Your task to perform on an android device: Clear the shopping cart on walmart.com. Search for jbl flip 4 on walmart.com, select the first entry, and add it to the cart. Image 0: 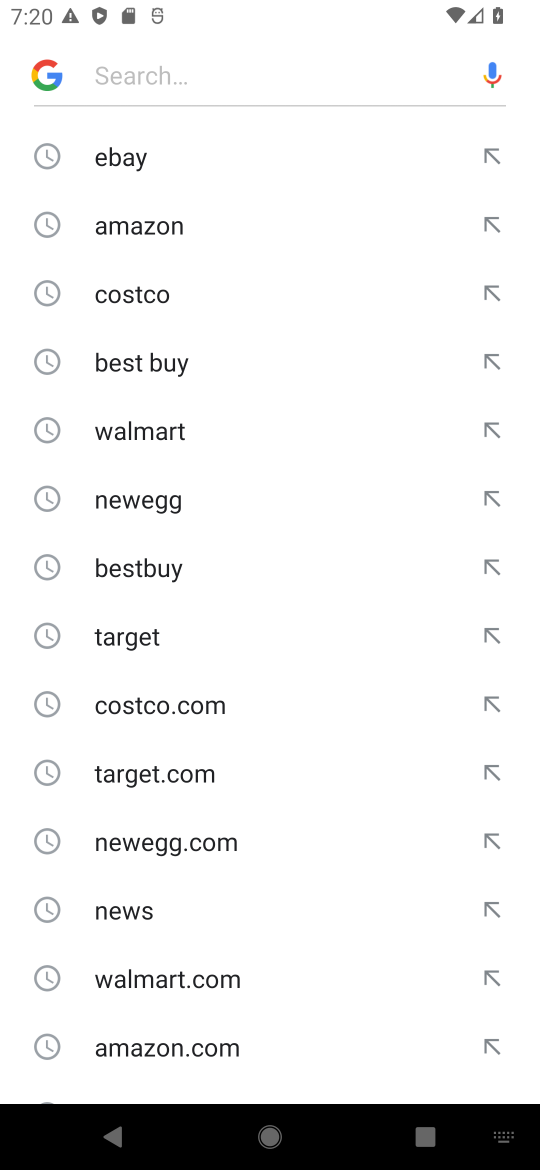
Step 0: press home button
Your task to perform on an android device: Clear the shopping cart on walmart.com. Search for jbl flip 4 on walmart.com, select the first entry, and add it to the cart. Image 1: 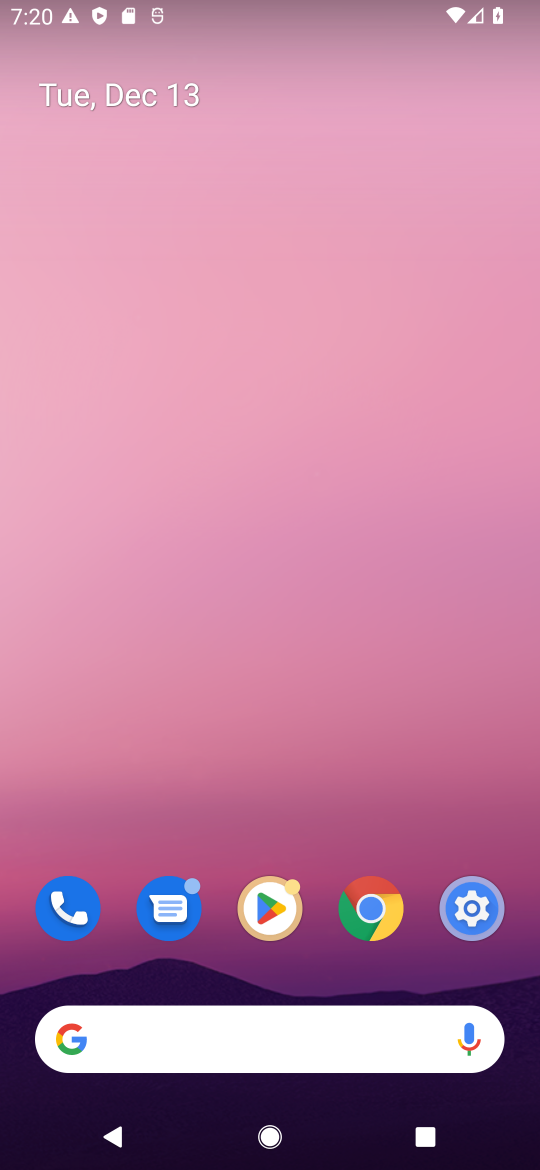
Step 1: click (123, 1041)
Your task to perform on an android device: Clear the shopping cart on walmart.com. Search for jbl flip 4 on walmart.com, select the first entry, and add it to the cart. Image 2: 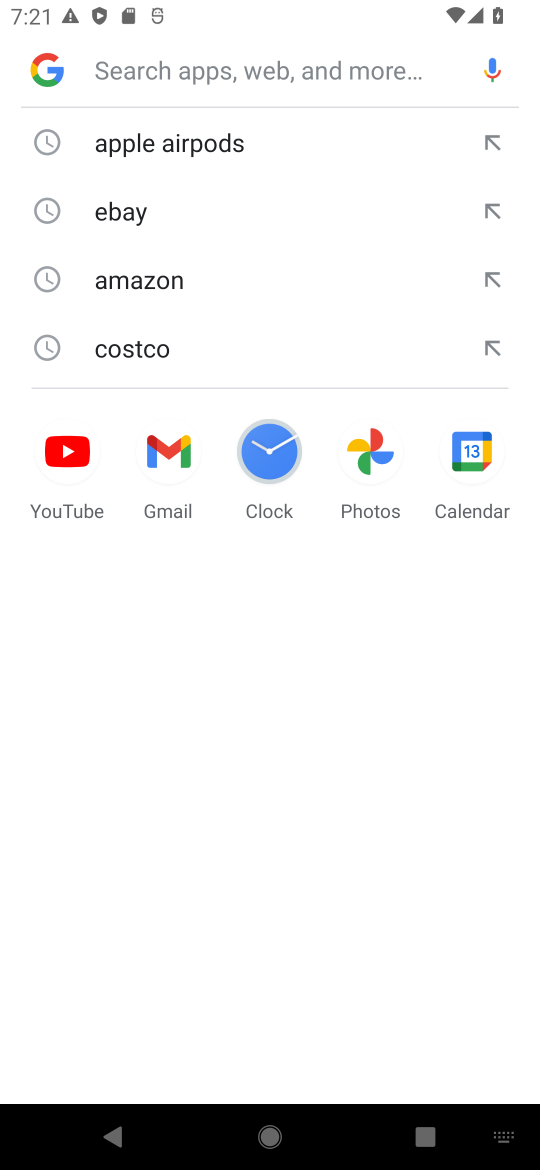
Step 2: type "walmart.com"
Your task to perform on an android device: Clear the shopping cart on walmart.com. Search for jbl flip 4 on walmart.com, select the first entry, and add it to the cart. Image 3: 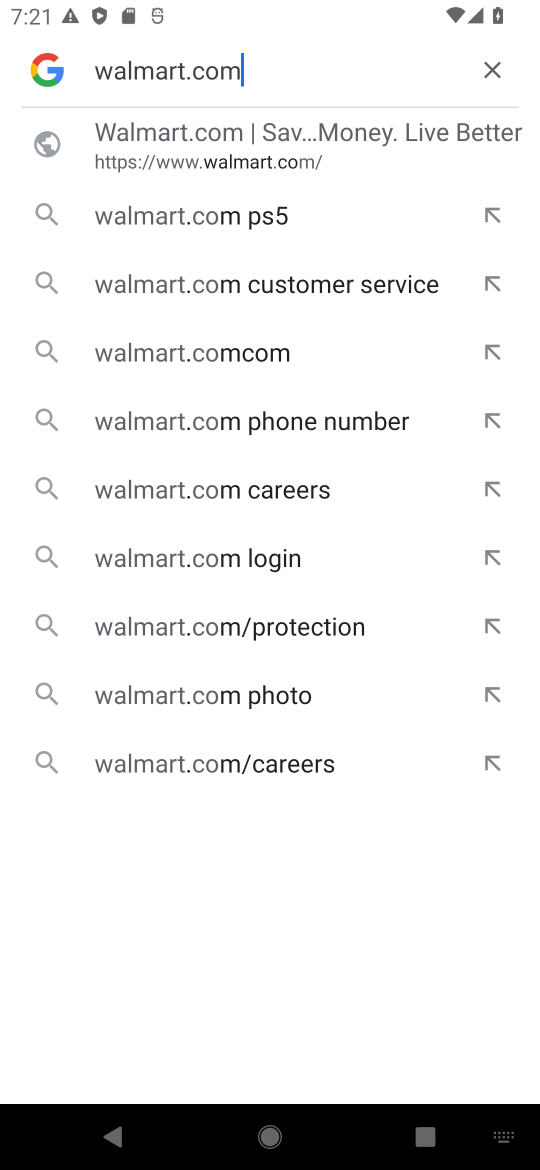
Step 3: press enter
Your task to perform on an android device: Clear the shopping cart on walmart.com. Search for jbl flip 4 on walmart.com, select the first entry, and add it to the cart. Image 4: 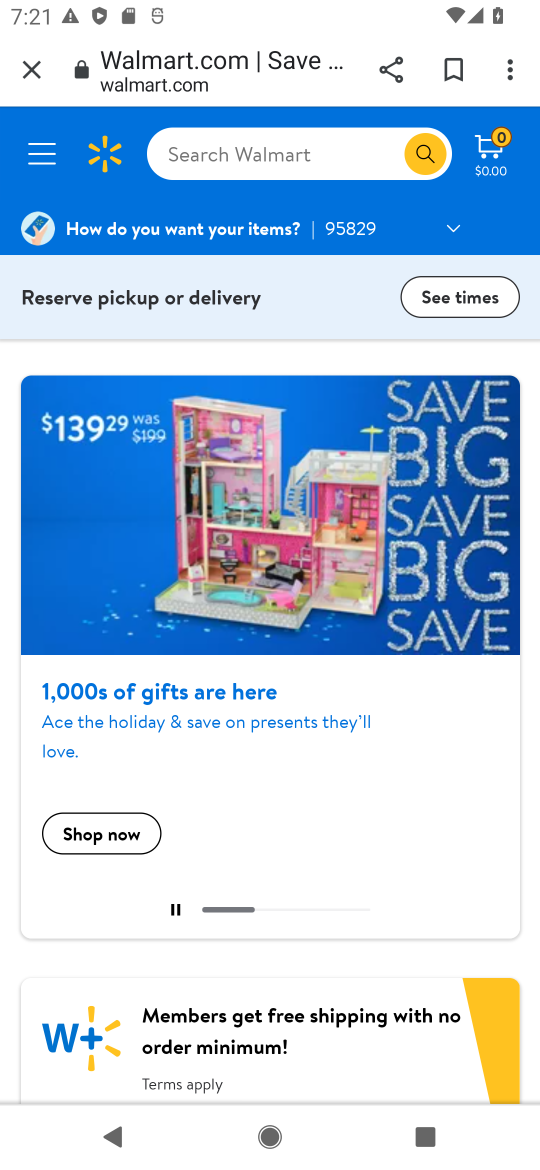
Step 4: click (488, 136)
Your task to perform on an android device: Clear the shopping cart on walmart.com. Search for jbl flip 4 on walmart.com, select the first entry, and add it to the cart. Image 5: 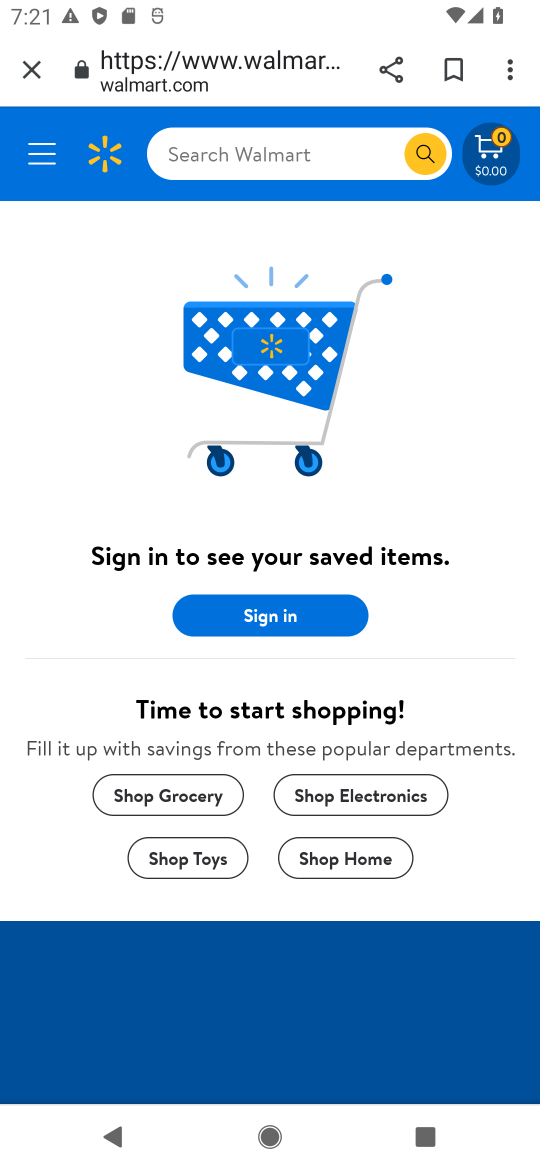
Step 5: click (205, 158)
Your task to perform on an android device: Clear the shopping cart on walmart.com. Search for jbl flip 4 on walmart.com, select the first entry, and add it to the cart. Image 6: 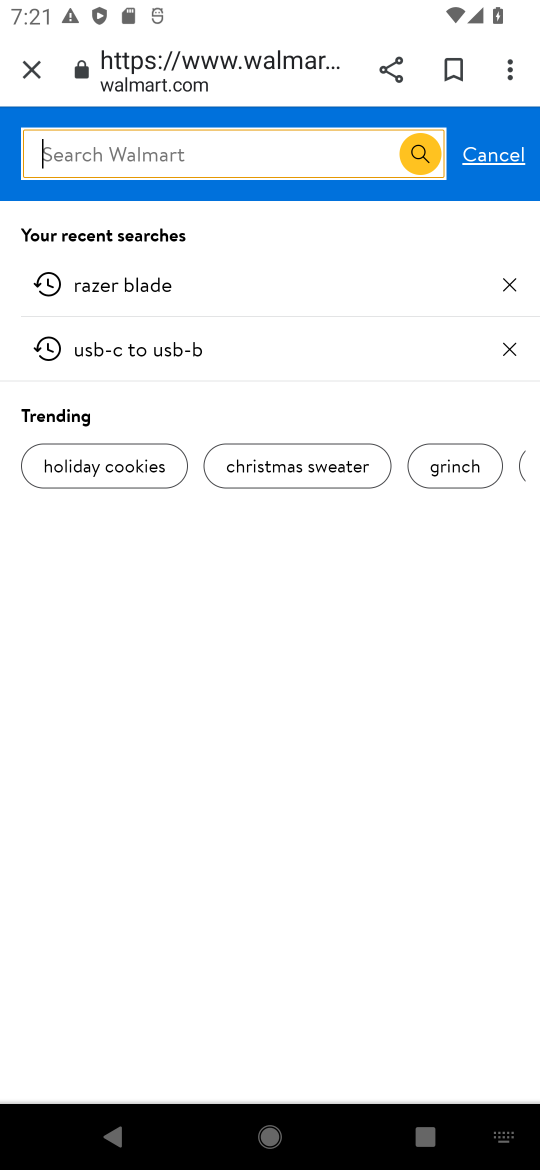
Step 6: type "jbl flip 4"
Your task to perform on an android device: Clear the shopping cart on walmart.com. Search for jbl flip 4 on walmart.com, select the first entry, and add it to the cart. Image 7: 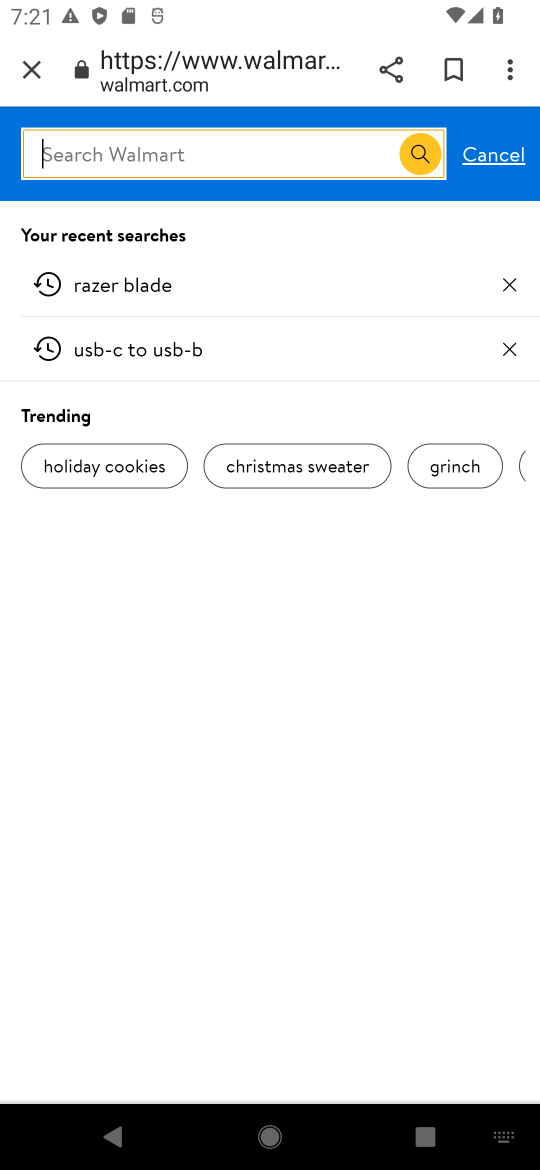
Step 7: press enter
Your task to perform on an android device: Clear the shopping cart on walmart.com. Search for jbl flip 4 on walmart.com, select the first entry, and add it to the cart. Image 8: 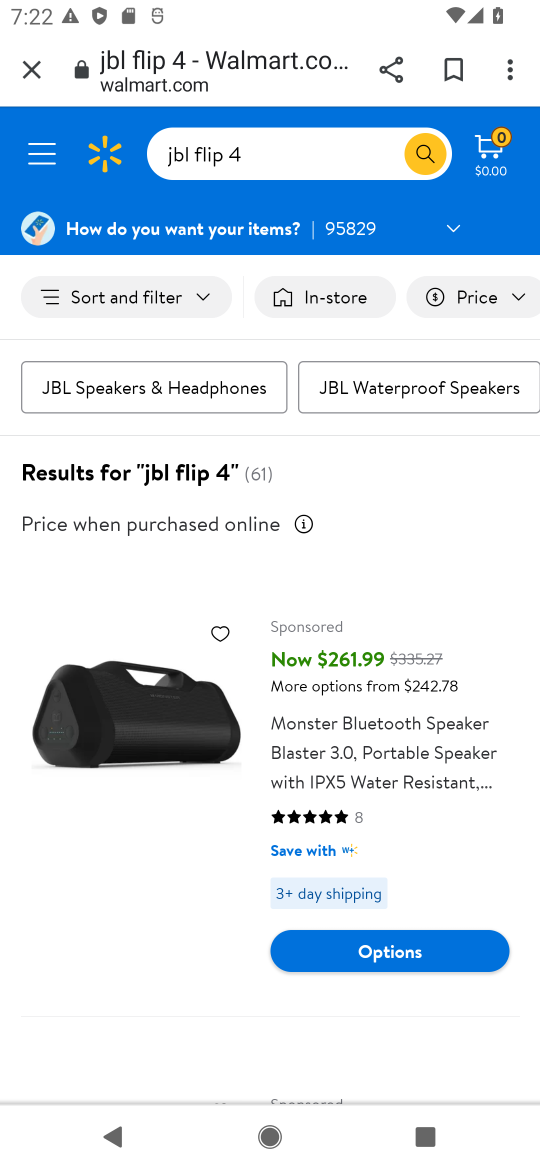
Step 8: drag from (366, 877) to (368, 406)
Your task to perform on an android device: Clear the shopping cart on walmart.com. Search for jbl flip 4 on walmart.com, select the first entry, and add it to the cart. Image 9: 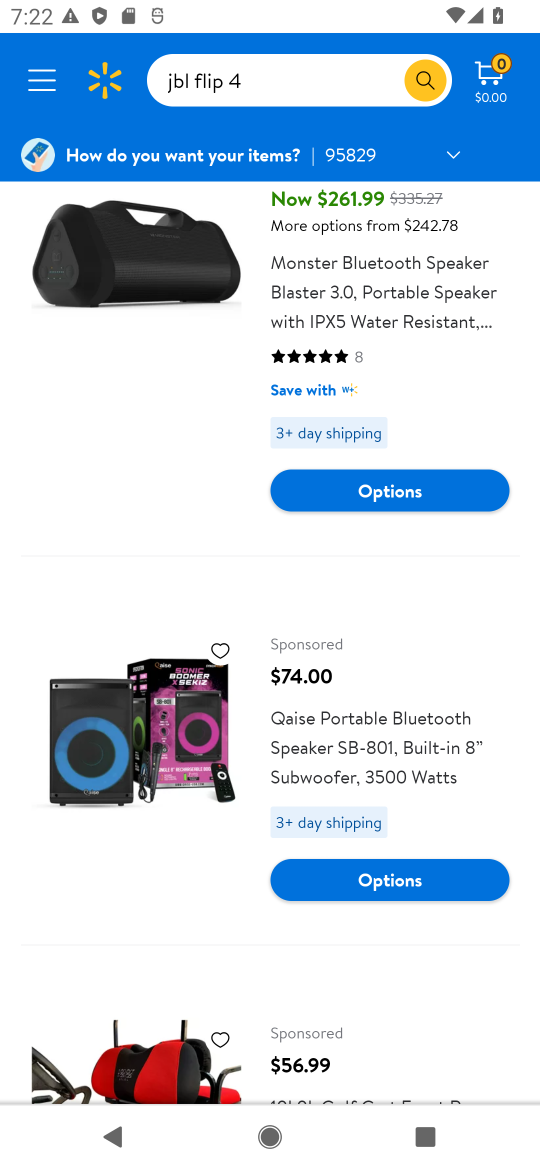
Step 9: drag from (351, 1015) to (390, 414)
Your task to perform on an android device: Clear the shopping cart on walmart.com. Search for jbl flip 4 on walmart.com, select the first entry, and add it to the cart. Image 10: 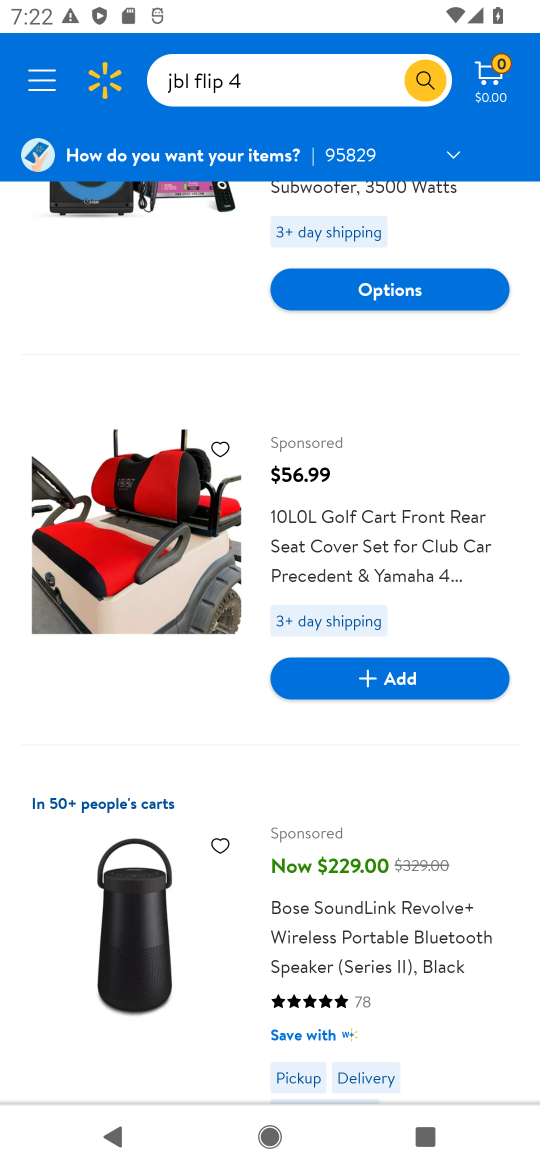
Step 10: drag from (391, 950) to (374, 283)
Your task to perform on an android device: Clear the shopping cart on walmart.com. Search for jbl flip 4 on walmart.com, select the first entry, and add it to the cart. Image 11: 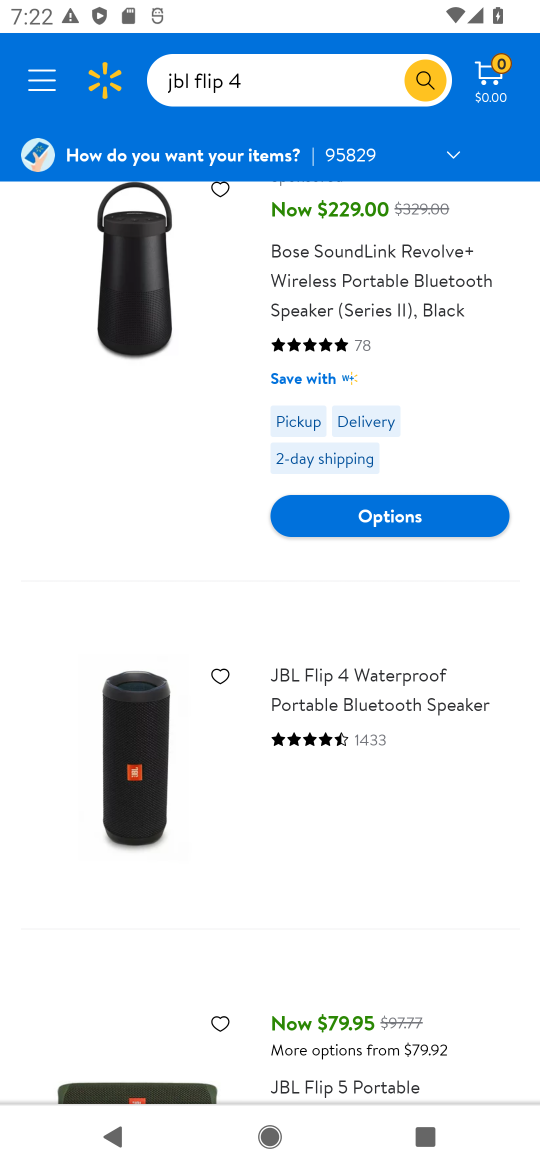
Step 11: drag from (402, 762) to (391, 408)
Your task to perform on an android device: Clear the shopping cart on walmart.com. Search for jbl flip 4 on walmart.com, select the first entry, and add it to the cart. Image 12: 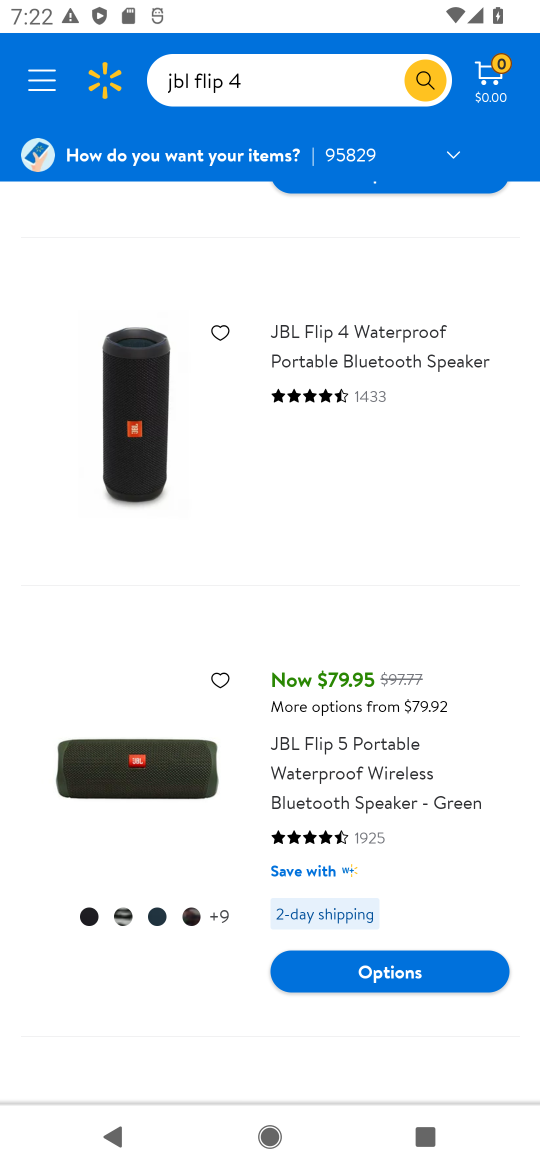
Step 12: click (295, 347)
Your task to perform on an android device: Clear the shopping cart on walmart.com. Search for jbl flip 4 on walmart.com, select the first entry, and add it to the cart. Image 13: 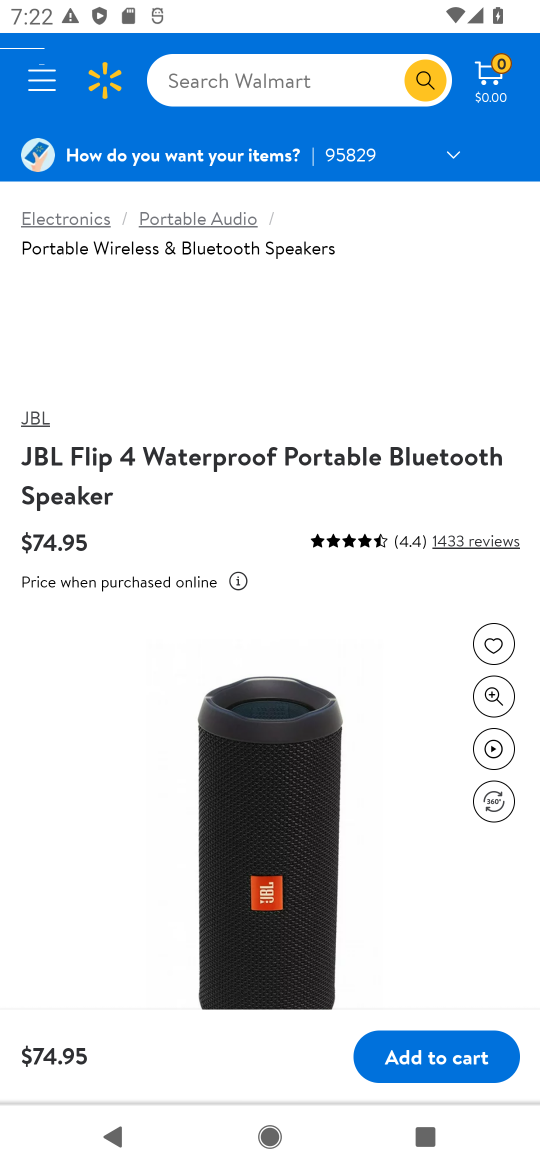
Step 13: click (437, 1064)
Your task to perform on an android device: Clear the shopping cart on walmart.com. Search for jbl flip 4 on walmart.com, select the first entry, and add it to the cart. Image 14: 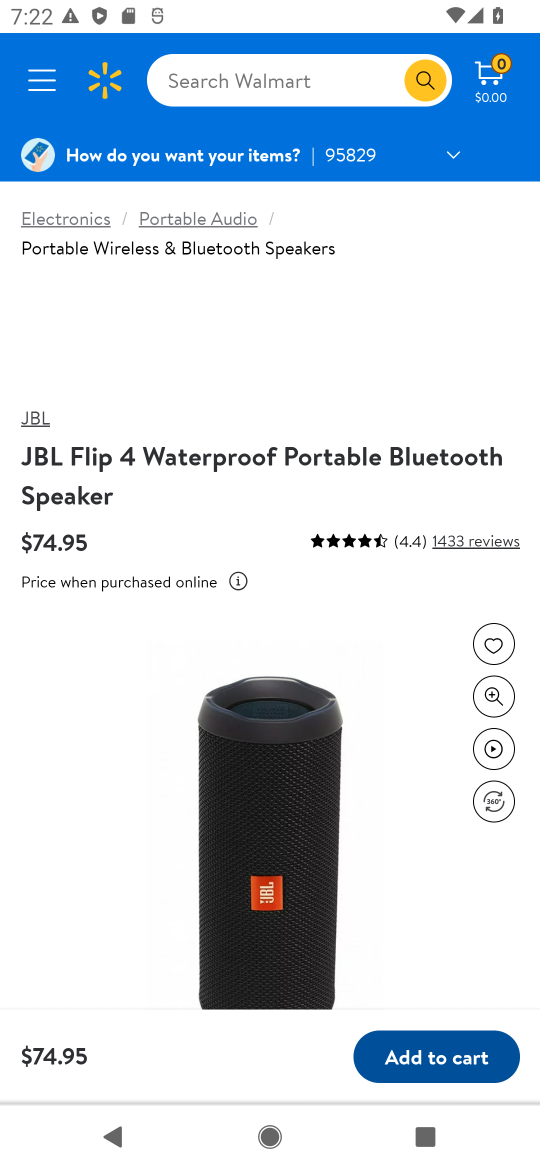
Step 14: click (400, 1052)
Your task to perform on an android device: Clear the shopping cart on walmart.com. Search for jbl flip 4 on walmart.com, select the first entry, and add it to the cart. Image 15: 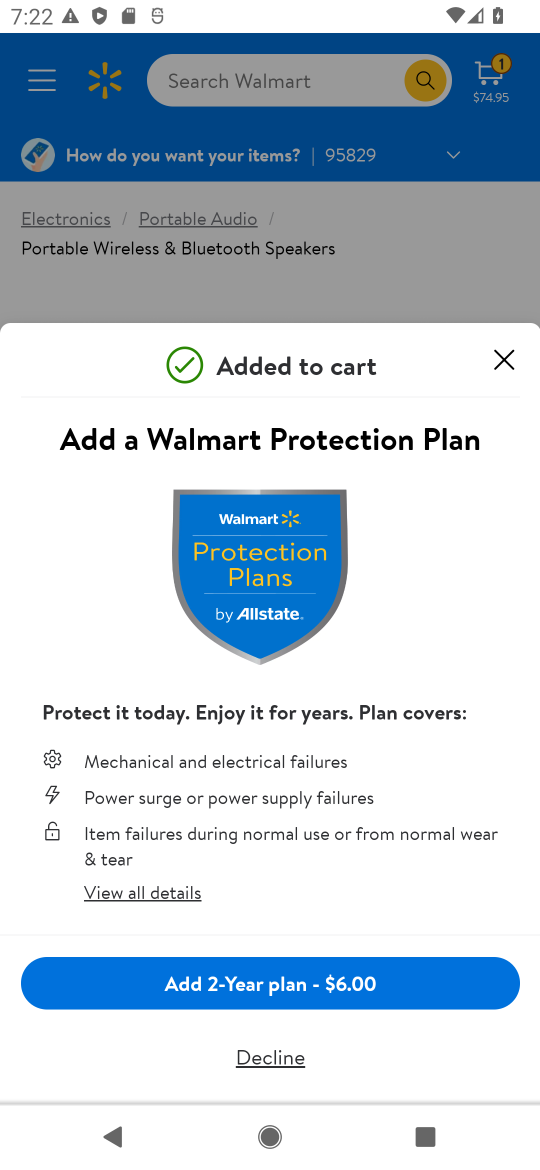
Step 15: task complete